Your task to perform on an android device: Go to Reddit.com Image 0: 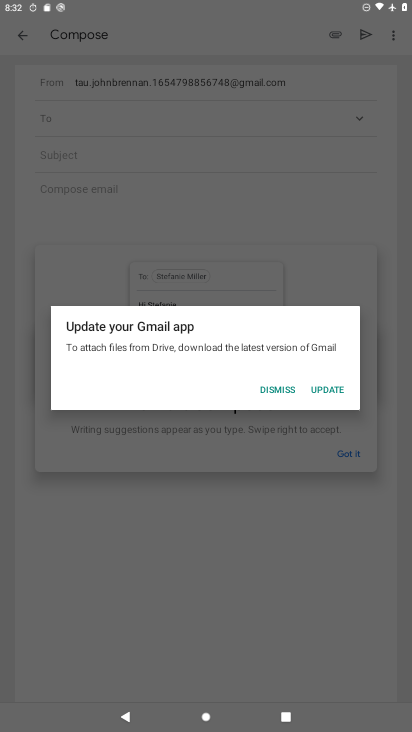
Step 0: press home button
Your task to perform on an android device: Go to Reddit.com Image 1: 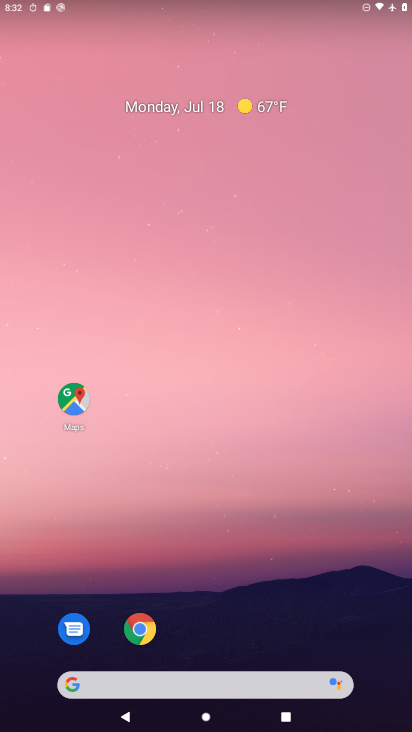
Step 1: click (146, 642)
Your task to perform on an android device: Go to Reddit.com Image 2: 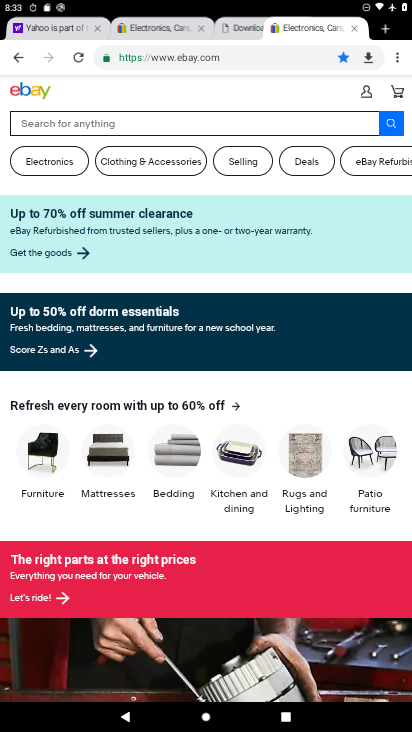
Step 2: click (383, 26)
Your task to perform on an android device: Go to Reddit.com Image 3: 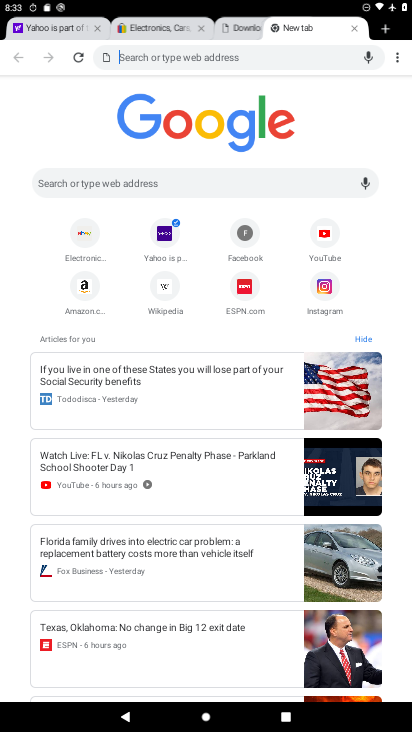
Step 3: click (174, 190)
Your task to perform on an android device: Go to Reddit.com Image 4: 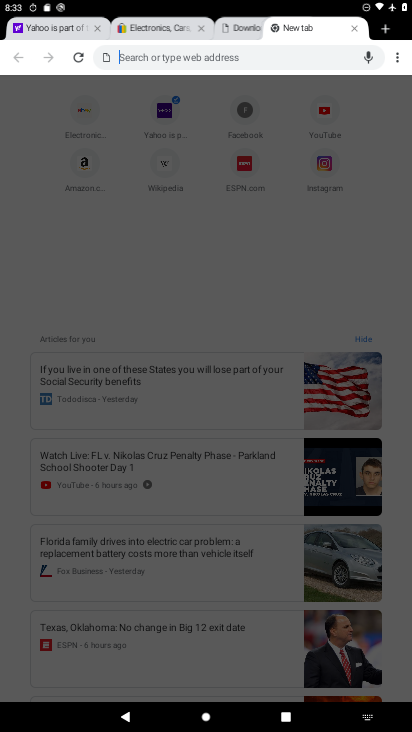
Step 4: type "Reddit.com"
Your task to perform on an android device: Go to Reddit.com Image 5: 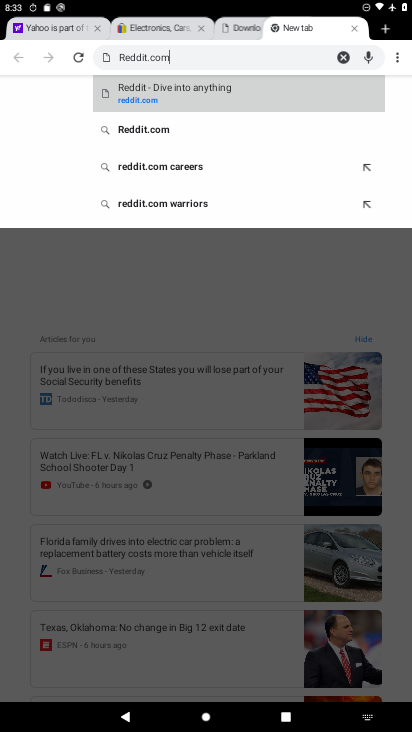
Step 5: type ""
Your task to perform on an android device: Go to Reddit.com Image 6: 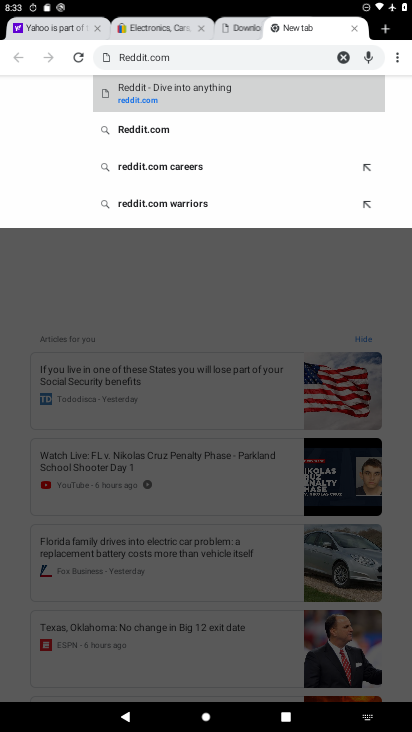
Step 6: click (172, 98)
Your task to perform on an android device: Go to Reddit.com Image 7: 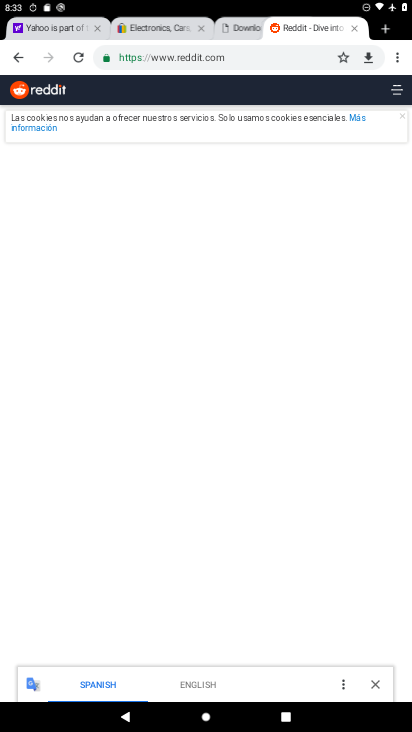
Step 7: task complete